Your task to perform on an android device: Go to settings Image 0: 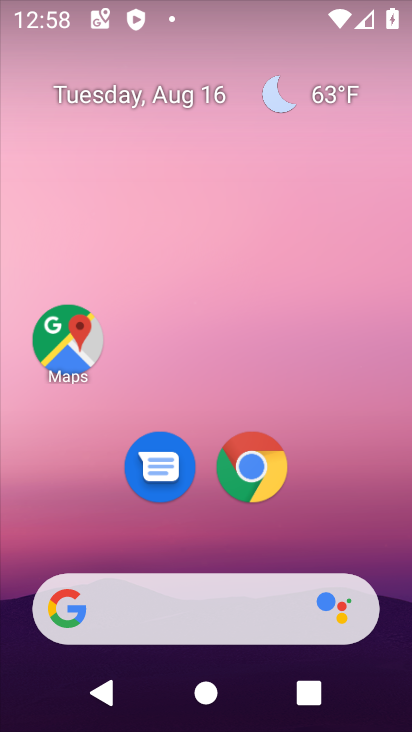
Step 0: press home button
Your task to perform on an android device: Go to settings Image 1: 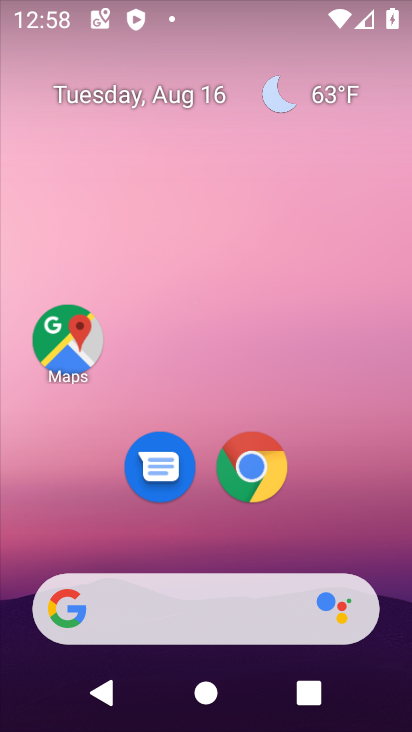
Step 1: drag from (362, 537) to (364, 84)
Your task to perform on an android device: Go to settings Image 2: 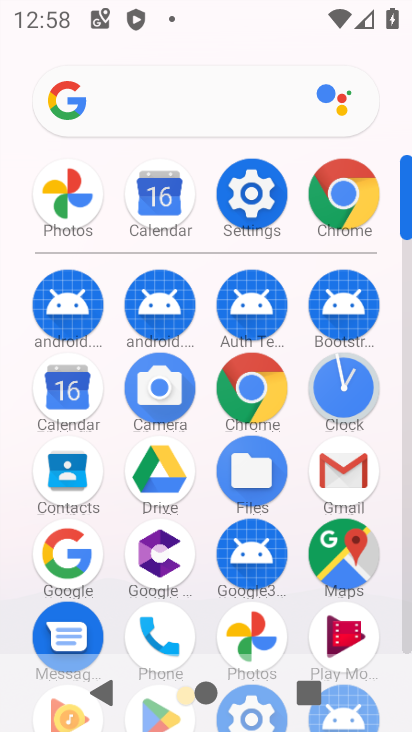
Step 2: click (246, 198)
Your task to perform on an android device: Go to settings Image 3: 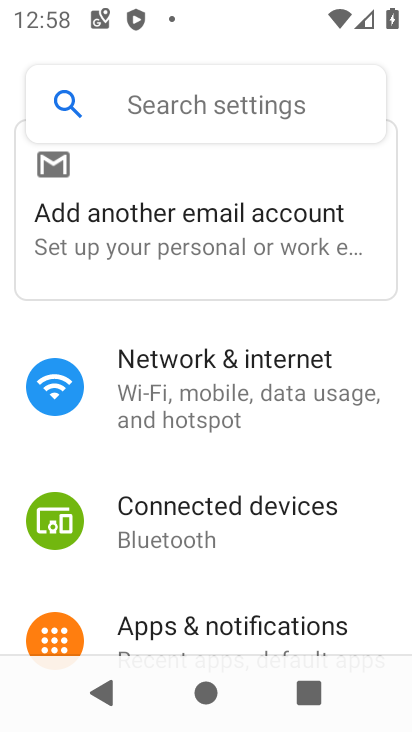
Step 3: task complete